Your task to perform on an android device: Open Maps and search for coffee Image 0: 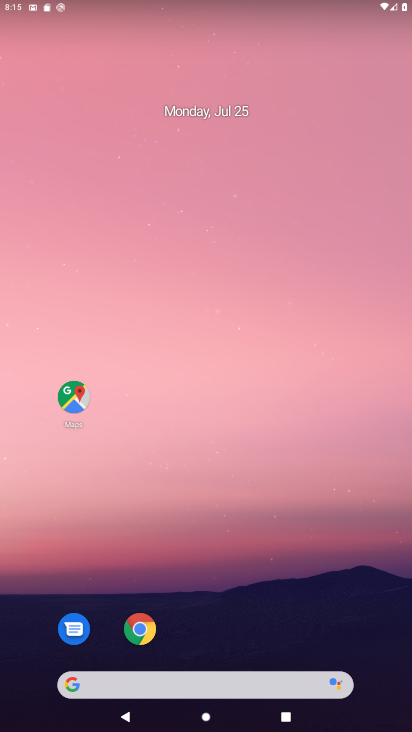
Step 0: click (73, 400)
Your task to perform on an android device: Open Maps and search for coffee Image 1: 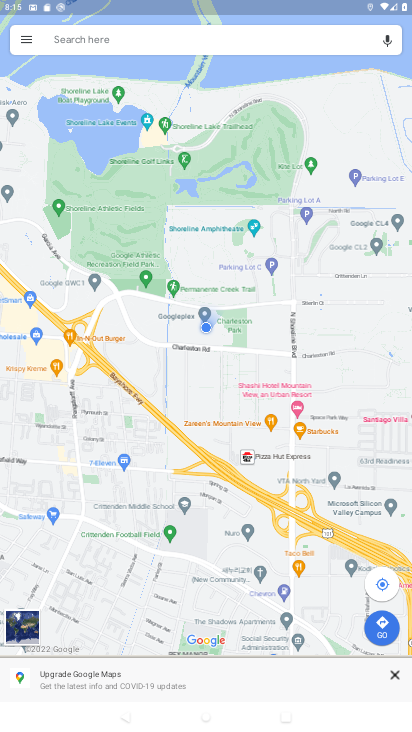
Step 1: click (145, 36)
Your task to perform on an android device: Open Maps and search for coffee Image 2: 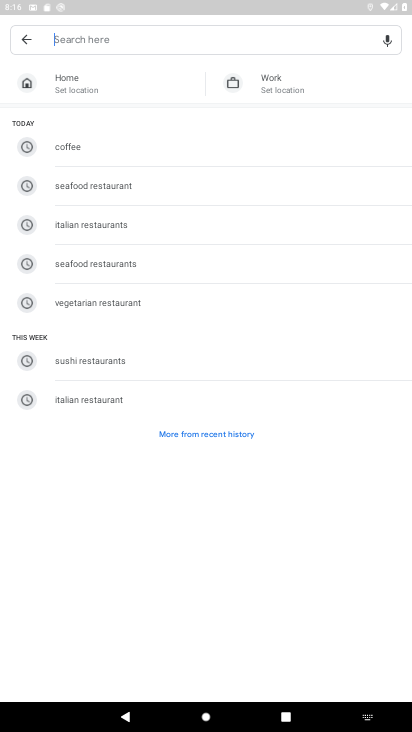
Step 2: type "coffee"
Your task to perform on an android device: Open Maps and search for coffee Image 3: 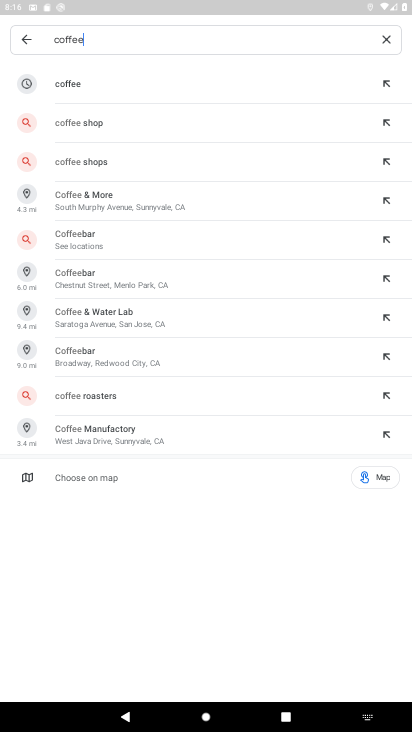
Step 3: click (77, 83)
Your task to perform on an android device: Open Maps and search for coffee Image 4: 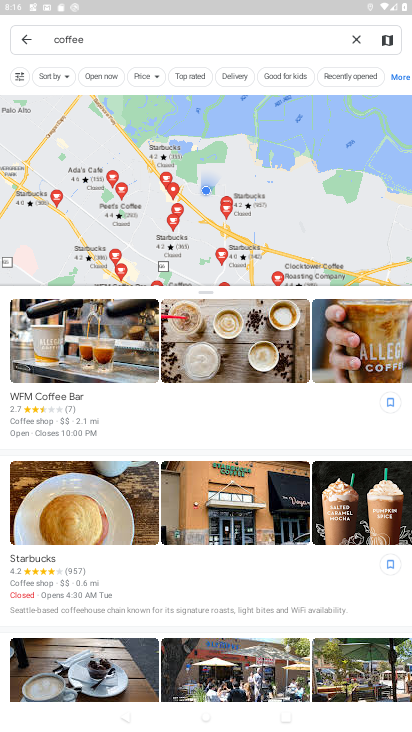
Step 4: task complete